Your task to perform on an android device: Go to Wikipedia Image 0: 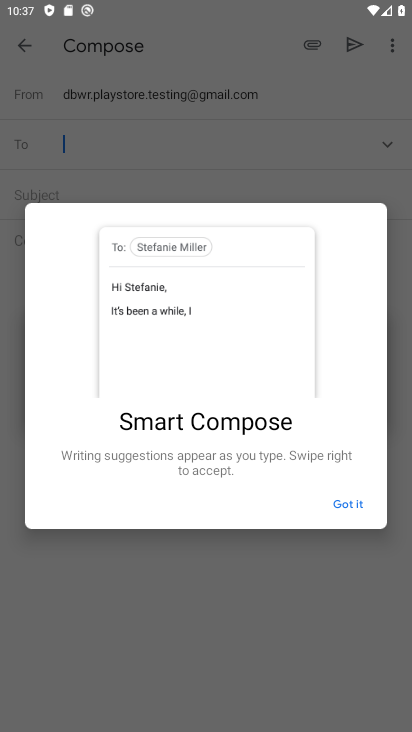
Step 0: press home button
Your task to perform on an android device: Go to Wikipedia Image 1: 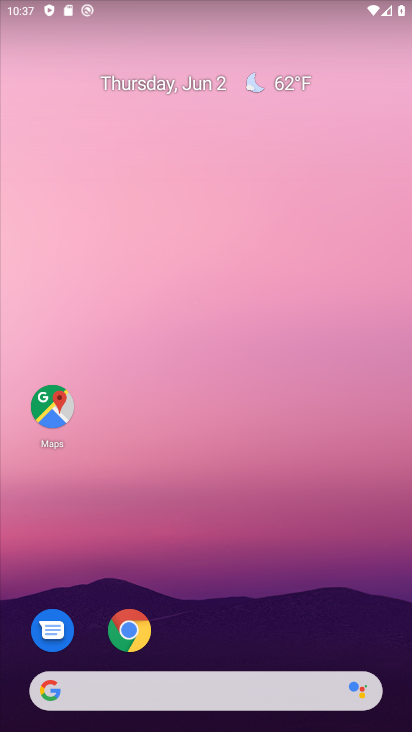
Step 1: click (129, 628)
Your task to perform on an android device: Go to Wikipedia Image 2: 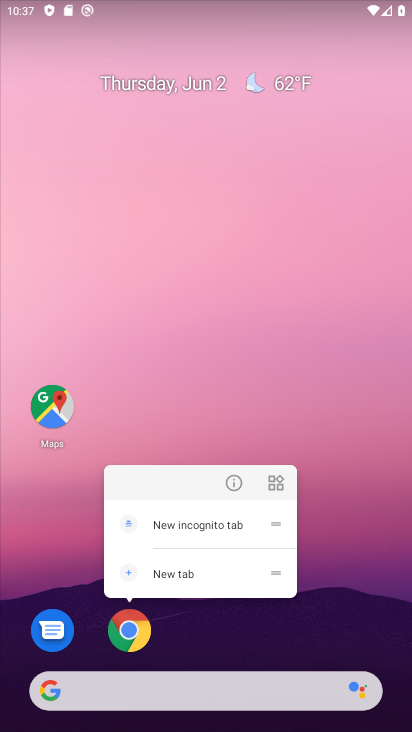
Step 2: click (139, 634)
Your task to perform on an android device: Go to Wikipedia Image 3: 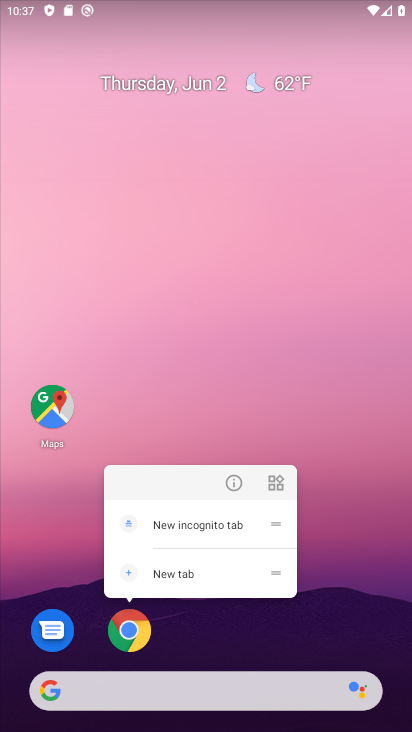
Step 3: click (139, 633)
Your task to perform on an android device: Go to Wikipedia Image 4: 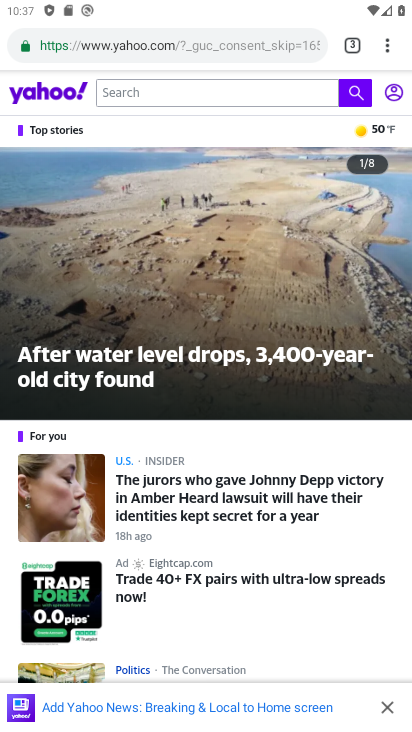
Step 4: drag from (388, 50) to (287, 95)
Your task to perform on an android device: Go to Wikipedia Image 5: 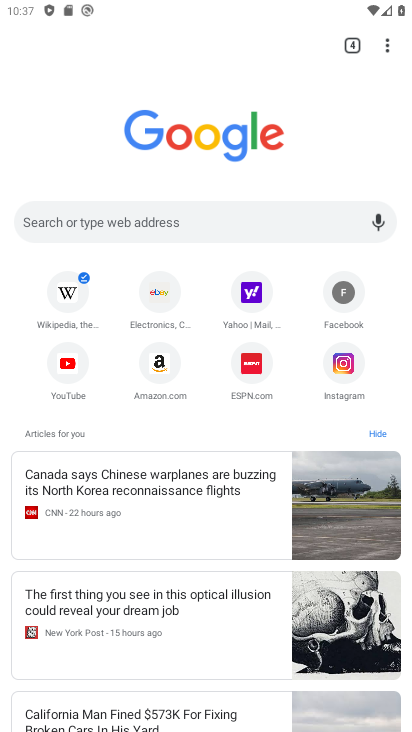
Step 5: click (62, 282)
Your task to perform on an android device: Go to Wikipedia Image 6: 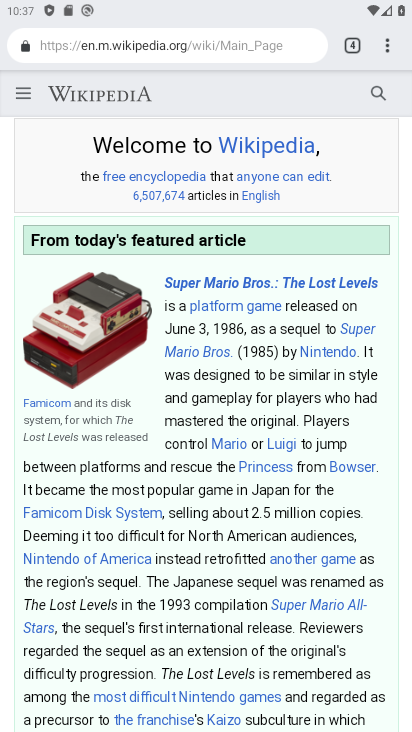
Step 6: task complete